Your task to perform on an android device: Open Maps and search for coffee Image 0: 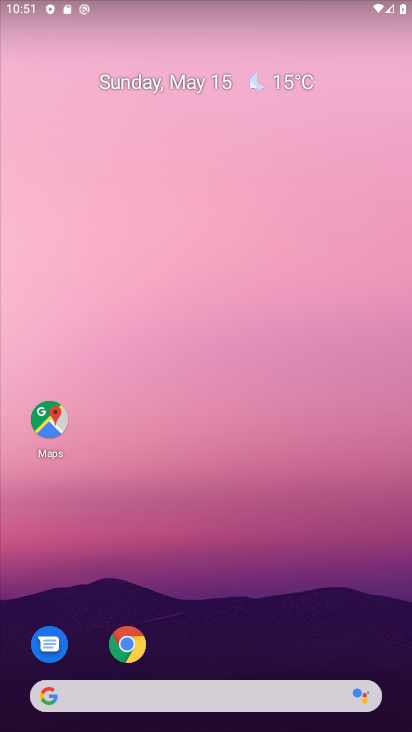
Step 0: click (47, 413)
Your task to perform on an android device: Open Maps and search for coffee Image 1: 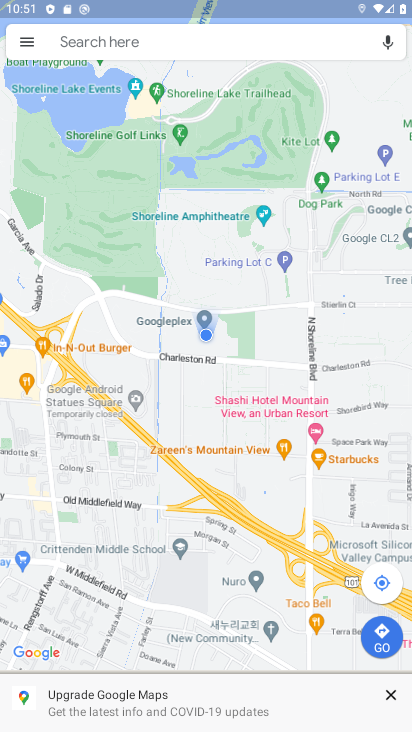
Step 1: click (150, 46)
Your task to perform on an android device: Open Maps and search for coffee Image 2: 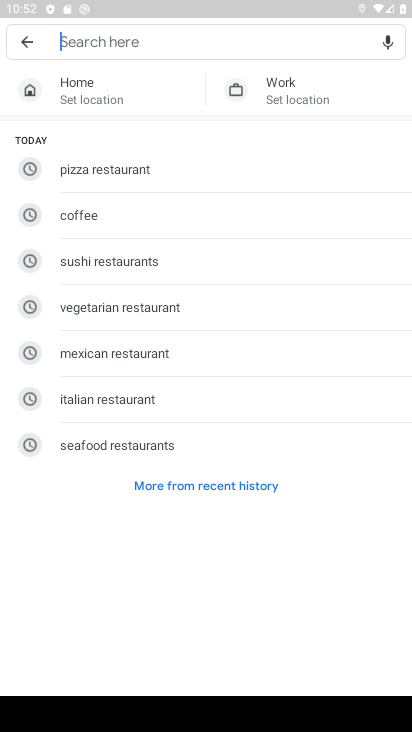
Step 2: click (172, 207)
Your task to perform on an android device: Open Maps and search for coffee Image 3: 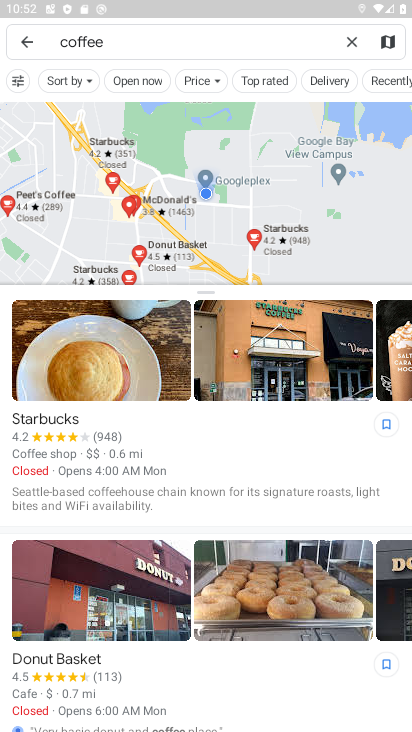
Step 3: task complete